Your task to perform on an android device: Open maps Image 0: 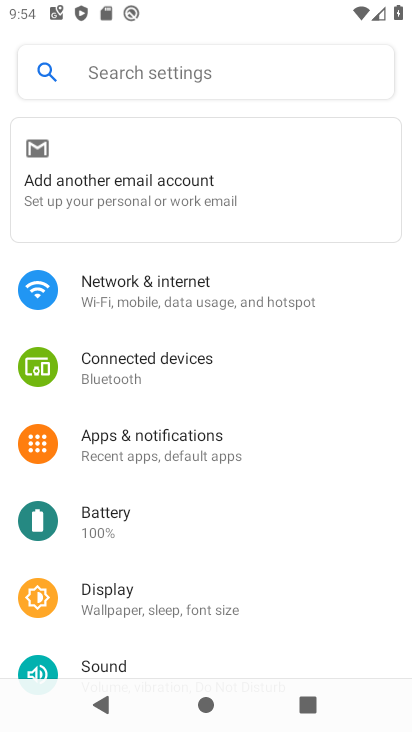
Step 0: press home button
Your task to perform on an android device: Open maps Image 1: 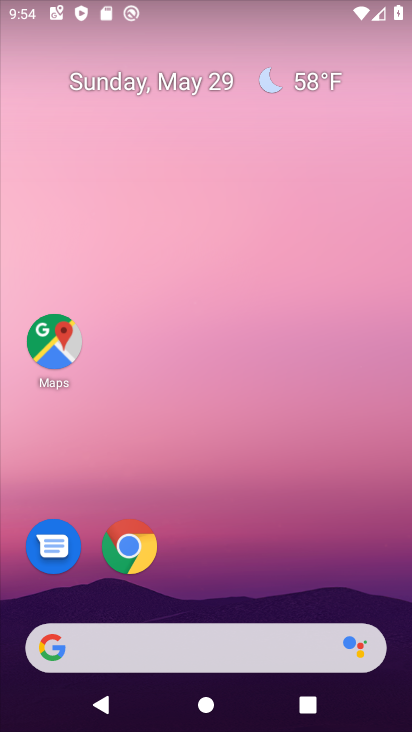
Step 1: click (51, 357)
Your task to perform on an android device: Open maps Image 2: 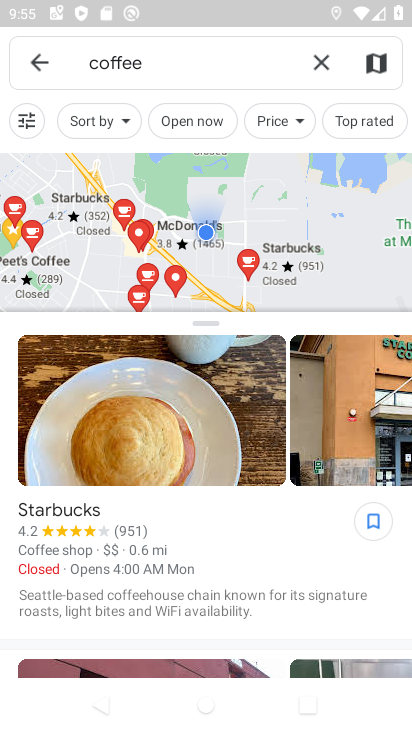
Step 2: task complete